Your task to perform on an android device: Go to Google maps Image 0: 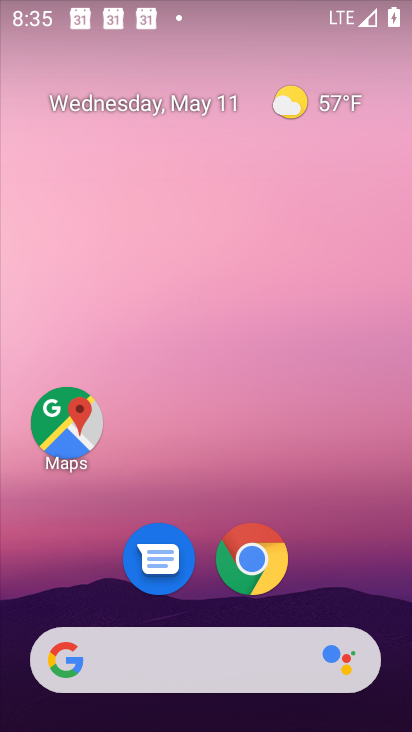
Step 0: click (86, 425)
Your task to perform on an android device: Go to Google maps Image 1: 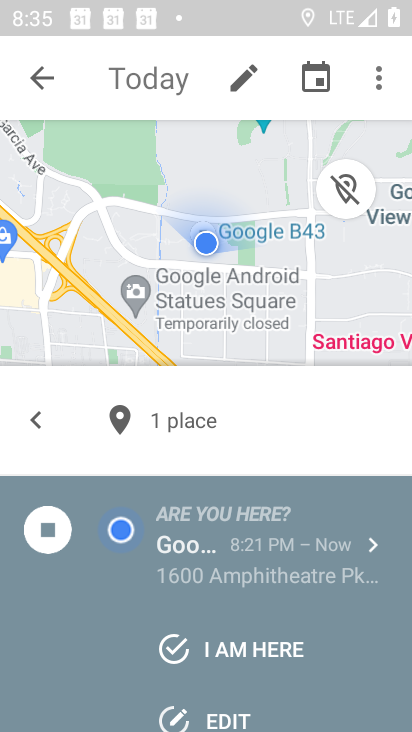
Step 1: task complete